Your task to perform on an android device: Is it going to rain this weekend? Image 0: 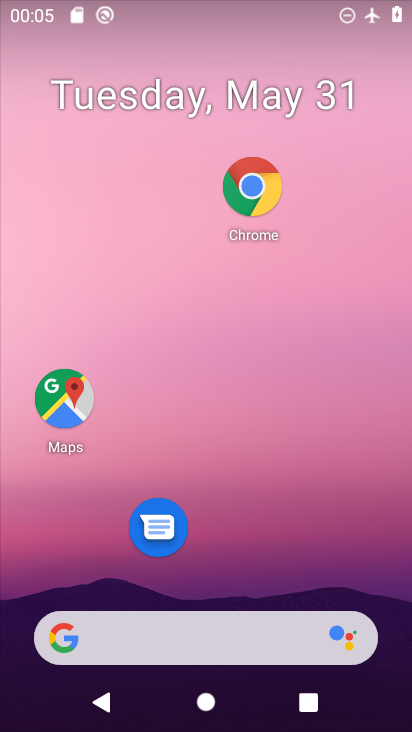
Step 0: click (250, 204)
Your task to perform on an android device: Is it going to rain this weekend? Image 1: 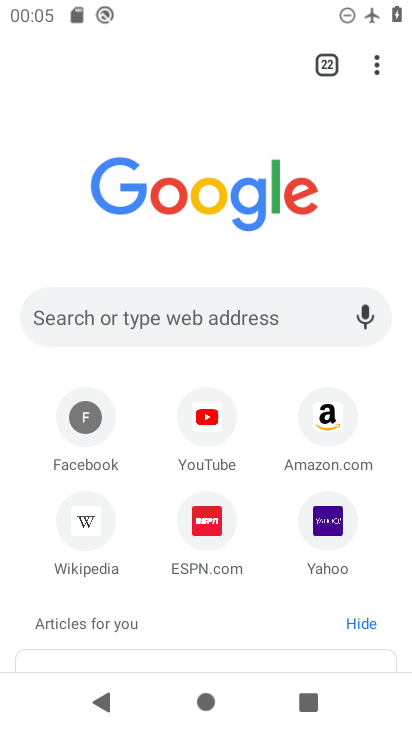
Step 1: click (194, 308)
Your task to perform on an android device: Is it going to rain this weekend? Image 2: 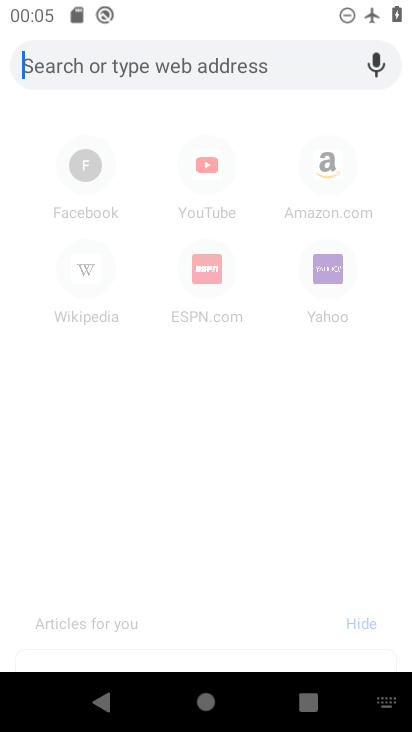
Step 2: type "Is it going to rain this weekend?"
Your task to perform on an android device: Is it going to rain this weekend? Image 3: 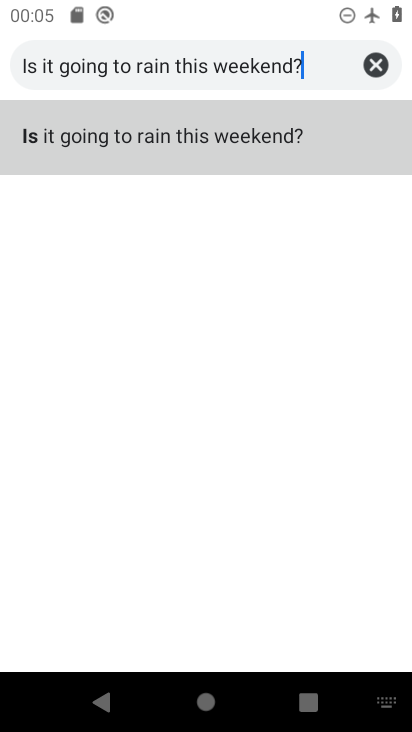
Step 3: click (273, 144)
Your task to perform on an android device: Is it going to rain this weekend? Image 4: 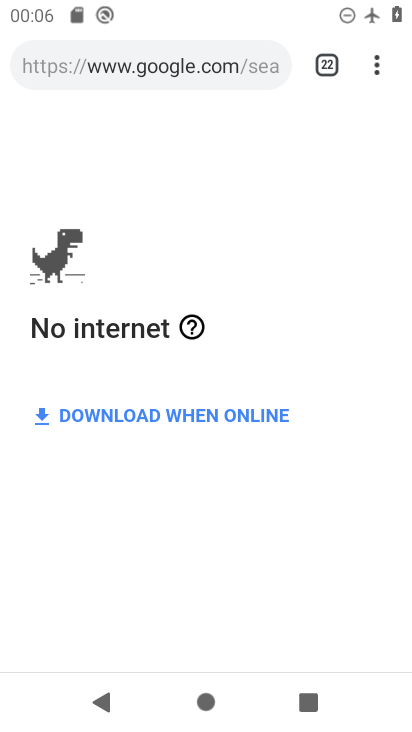
Step 4: task complete